Your task to perform on an android device: change the clock display to analog Image 0: 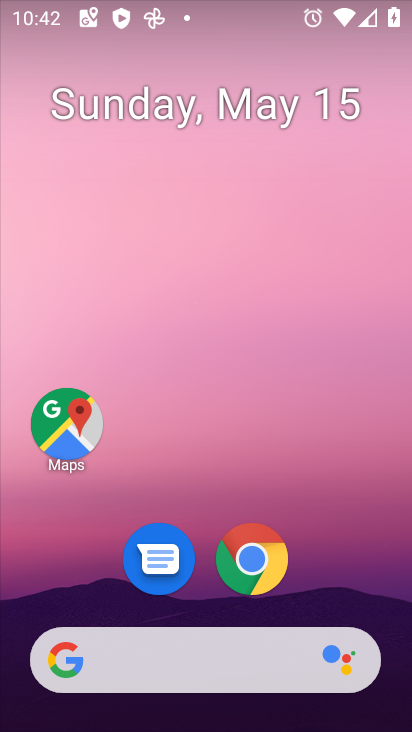
Step 0: drag from (339, 597) to (347, 84)
Your task to perform on an android device: change the clock display to analog Image 1: 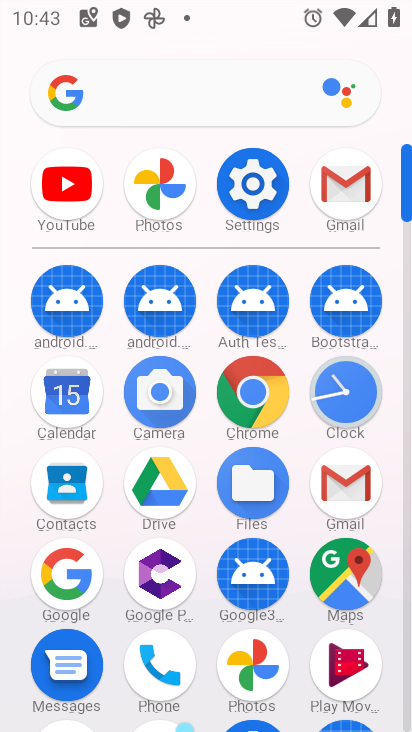
Step 1: click (254, 182)
Your task to perform on an android device: change the clock display to analog Image 2: 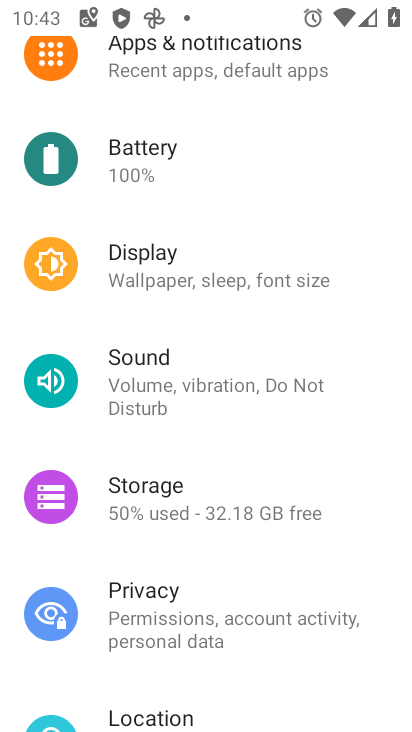
Step 2: drag from (214, 236) to (201, 516)
Your task to perform on an android device: change the clock display to analog Image 3: 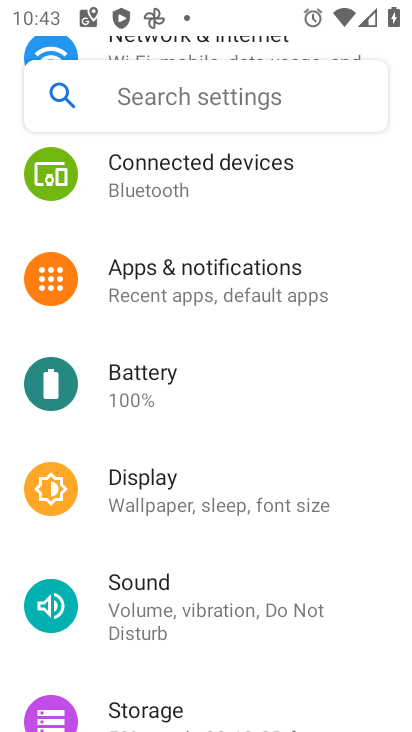
Step 3: press home button
Your task to perform on an android device: change the clock display to analog Image 4: 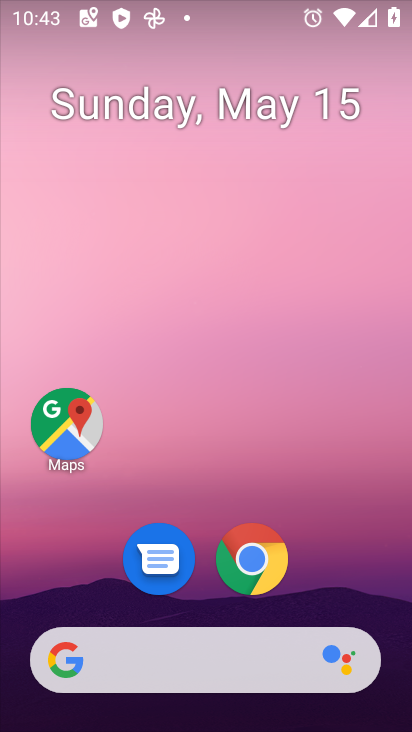
Step 4: drag from (392, 519) to (383, 65)
Your task to perform on an android device: change the clock display to analog Image 5: 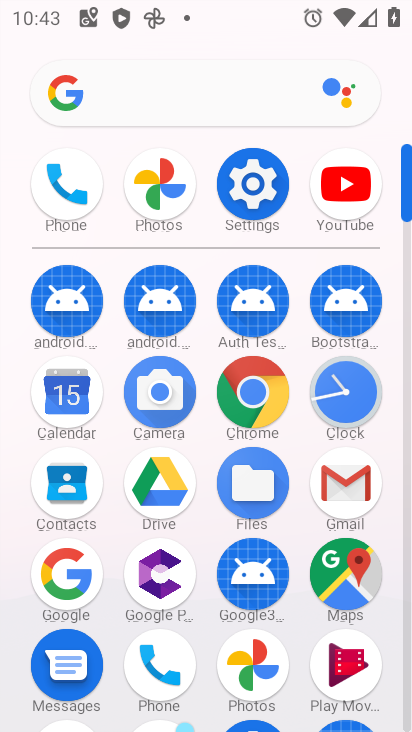
Step 5: click (348, 395)
Your task to perform on an android device: change the clock display to analog Image 6: 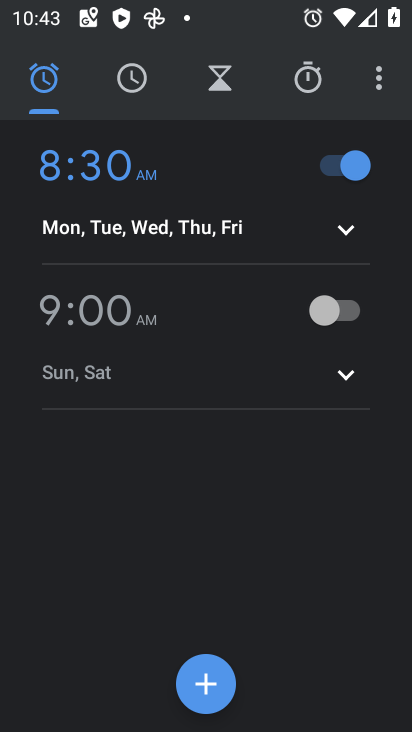
Step 6: click (370, 102)
Your task to perform on an android device: change the clock display to analog Image 7: 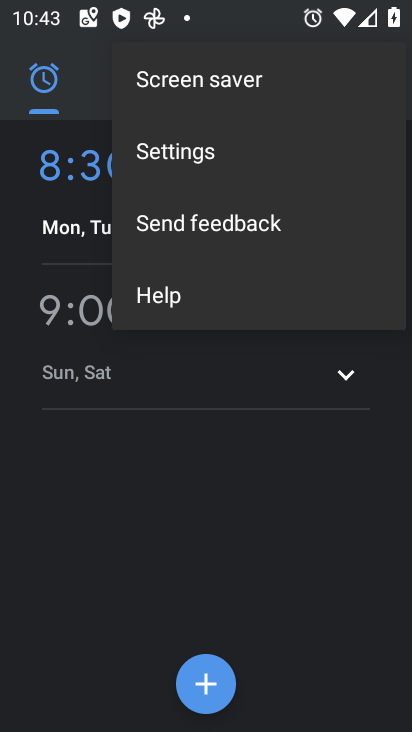
Step 7: click (222, 149)
Your task to perform on an android device: change the clock display to analog Image 8: 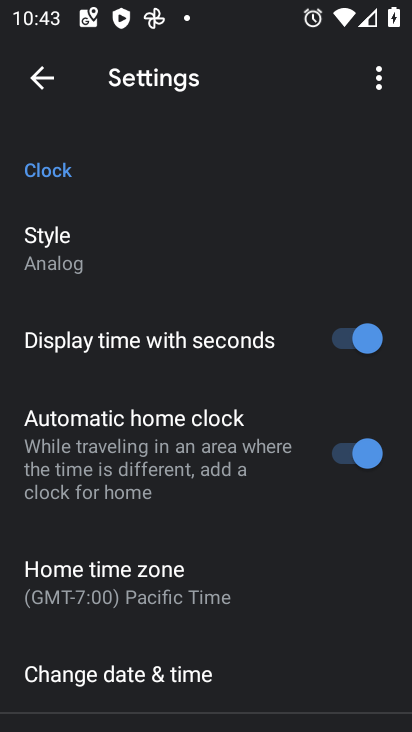
Step 8: task complete